Your task to perform on an android device: turn on airplane mode Image 0: 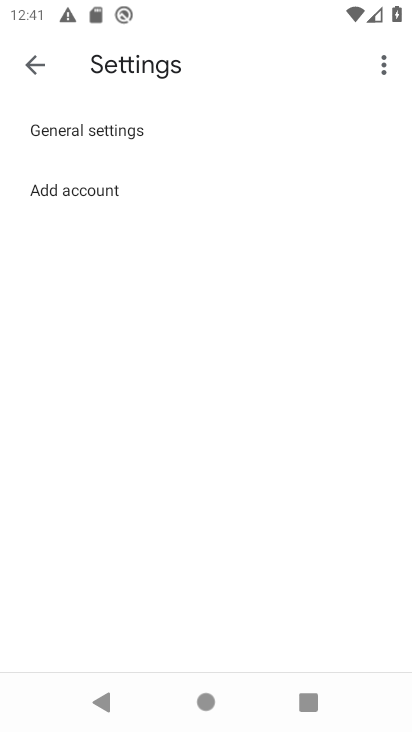
Step 0: press home button
Your task to perform on an android device: turn on airplane mode Image 1: 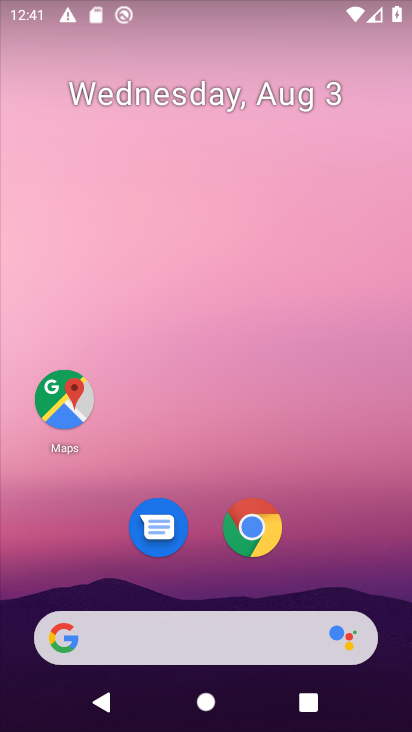
Step 1: click (231, 532)
Your task to perform on an android device: turn on airplane mode Image 2: 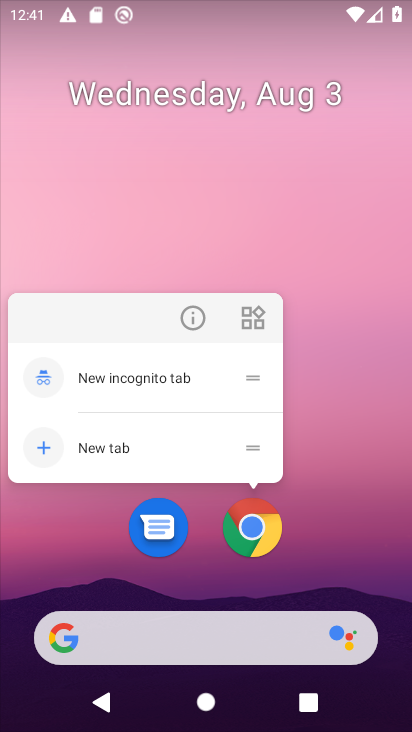
Step 2: click (255, 525)
Your task to perform on an android device: turn on airplane mode Image 3: 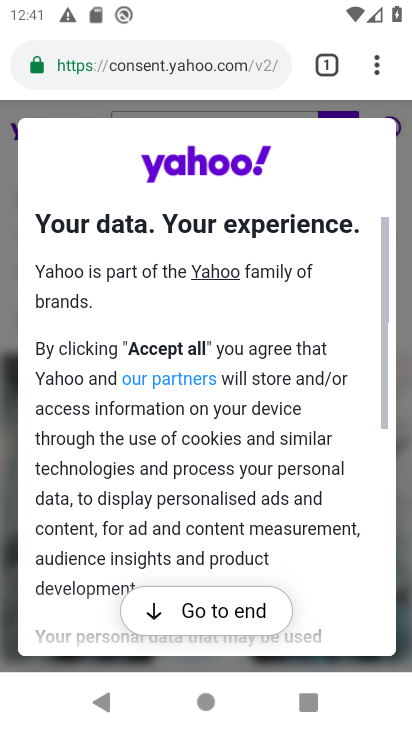
Step 3: press home button
Your task to perform on an android device: turn on airplane mode Image 4: 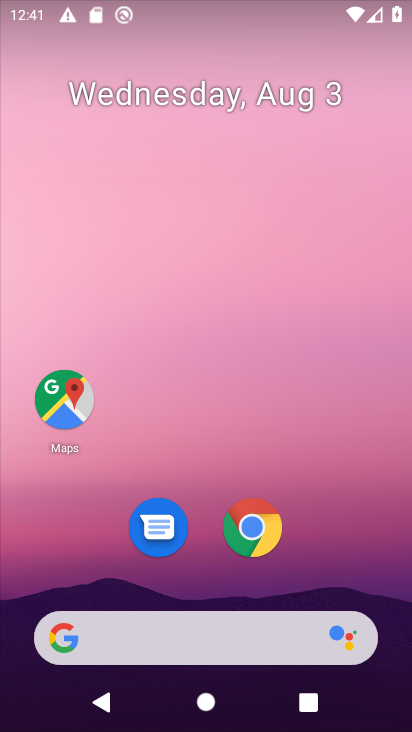
Step 4: drag from (82, 629) to (255, 26)
Your task to perform on an android device: turn on airplane mode Image 5: 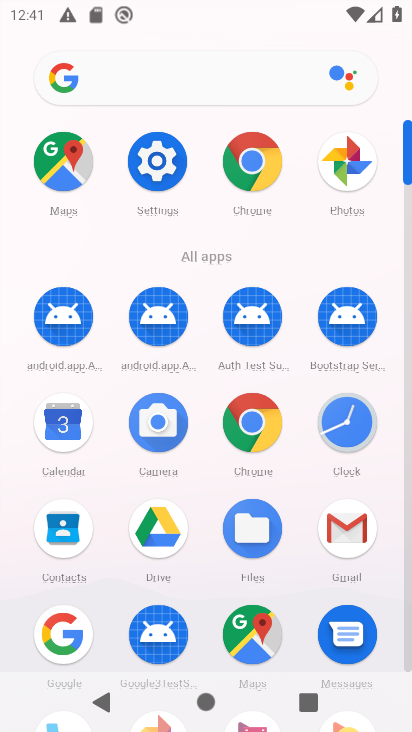
Step 5: drag from (224, 511) to (241, 358)
Your task to perform on an android device: turn on airplane mode Image 6: 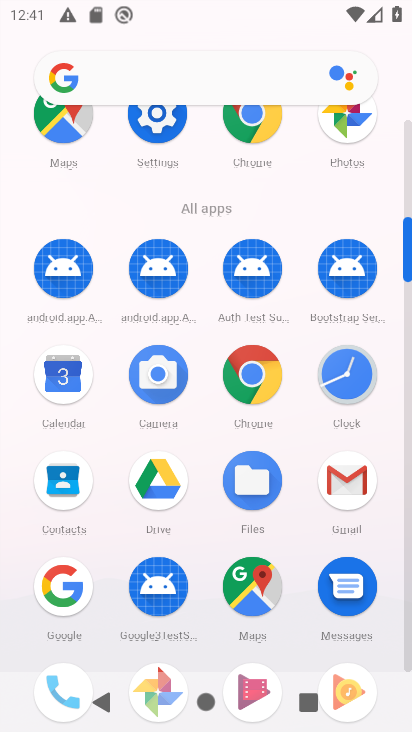
Step 6: drag from (205, 561) to (336, 6)
Your task to perform on an android device: turn on airplane mode Image 7: 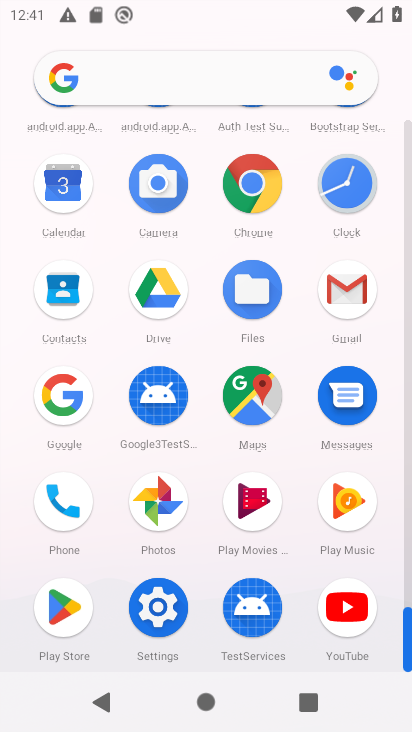
Step 7: click (147, 598)
Your task to perform on an android device: turn on airplane mode Image 8: 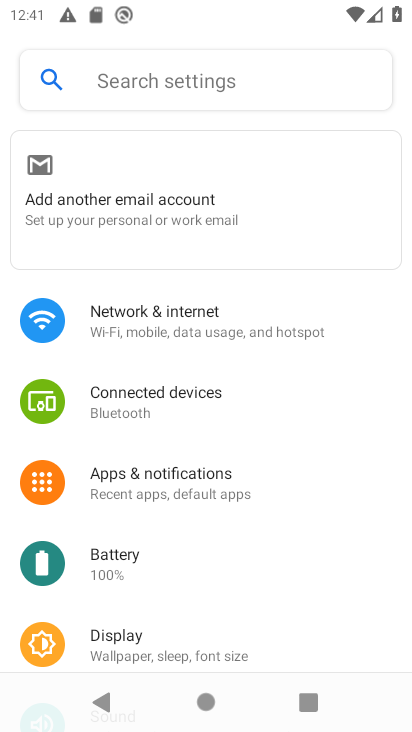
Step 8: click (151, 323)
Your task to perform on an android device: turn on airplane mode Image 9: 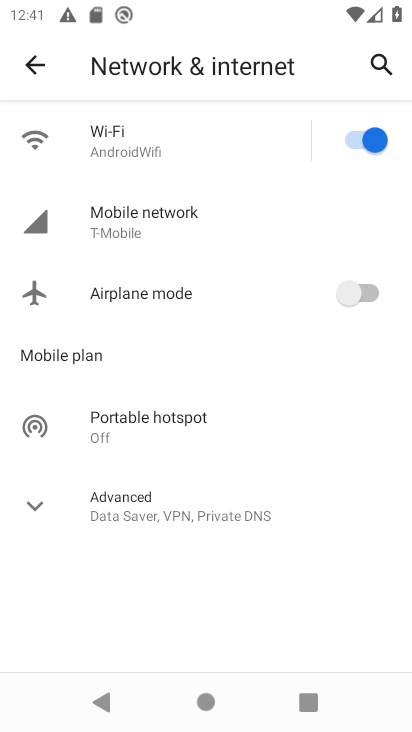
Step 9: click (357, 293)
Your task to perform on an android device: turn on airplane mode Image 10: 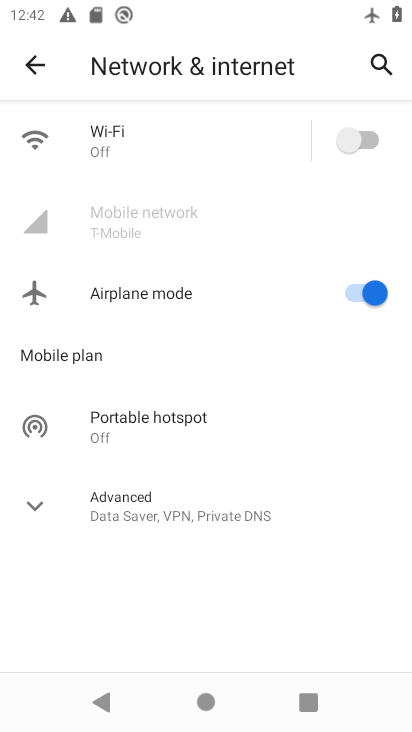
Step 10: task complete